Your task to perform on an android device: open app "VLC for Android" (install if not already installed) Image 0: 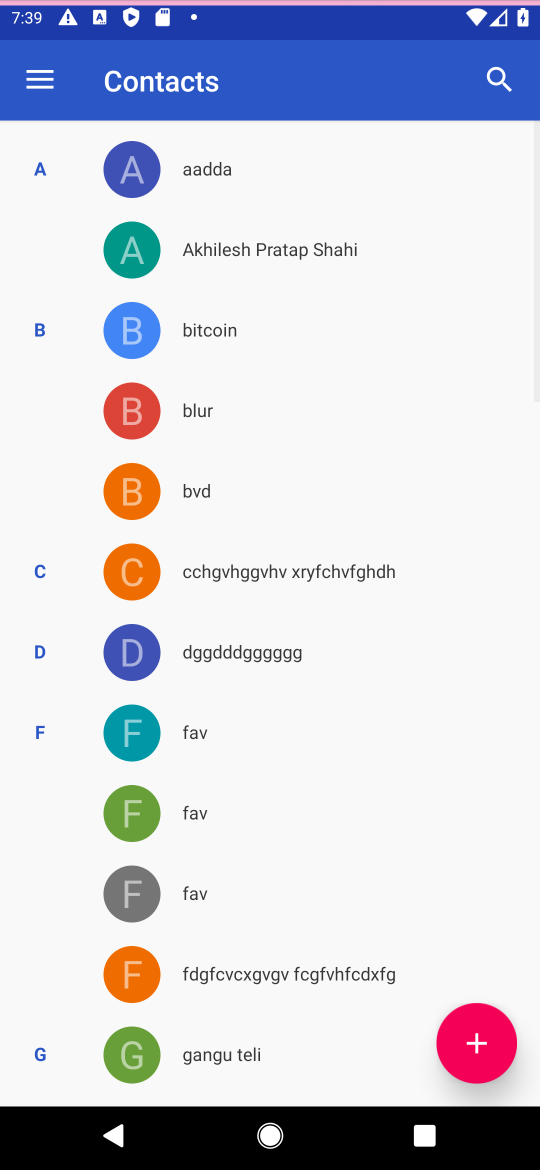
Step 0: click (267, 586)
Your task to perform on an android device: open app "VLC for Android" (install if not already installed) Image 1: 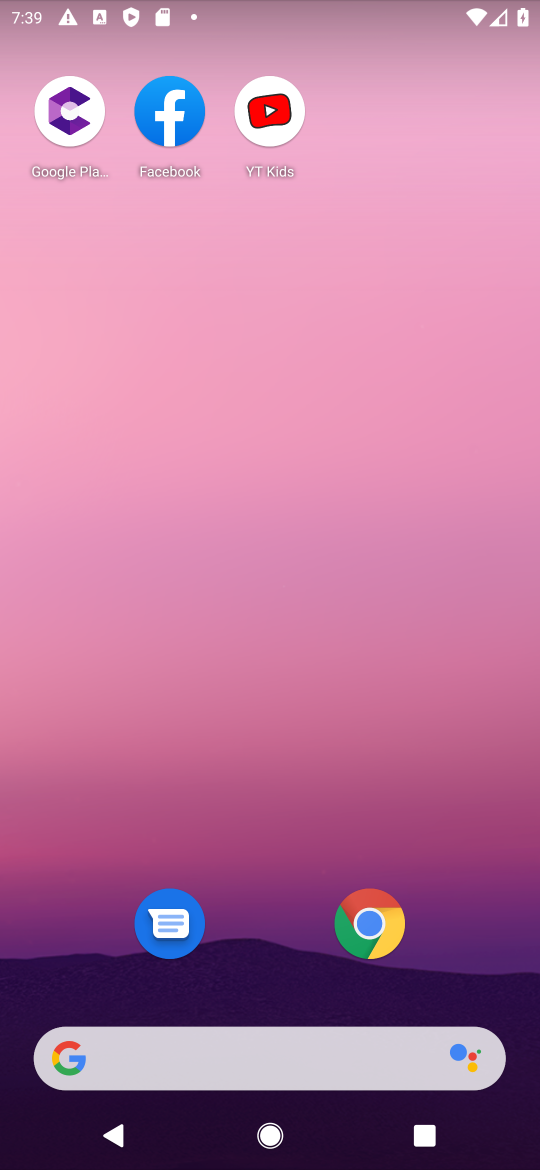
Step 1: press home button
Your task to perform on an android device: open app "VLC for Android" (install if not already installed) Image 2: 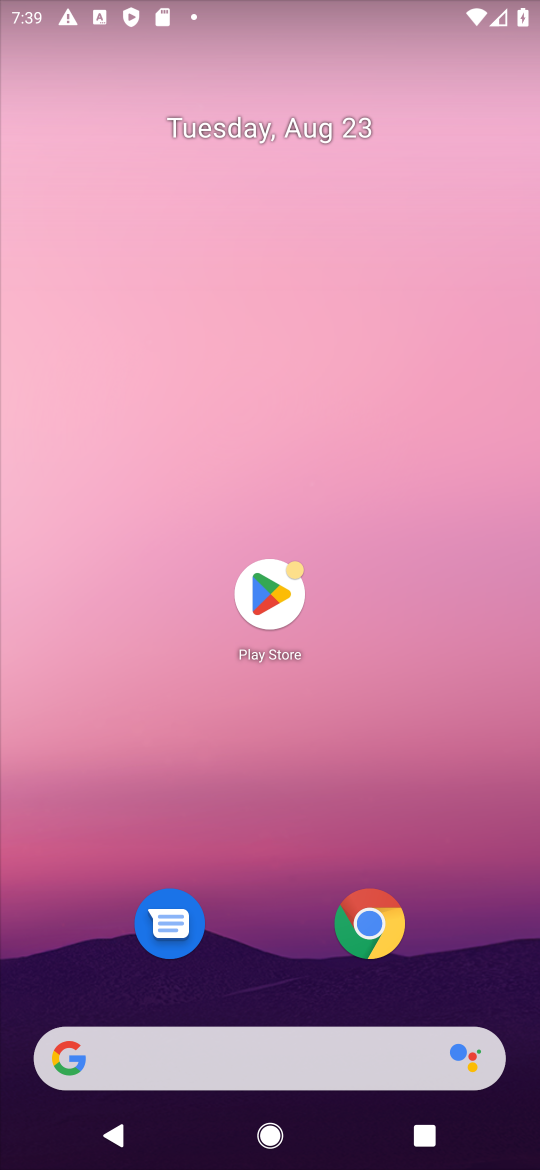
Step 2: click (284, 599)
Your task to perform on an android device: open app "VLC for Android" (install if not already installed) Image 3: 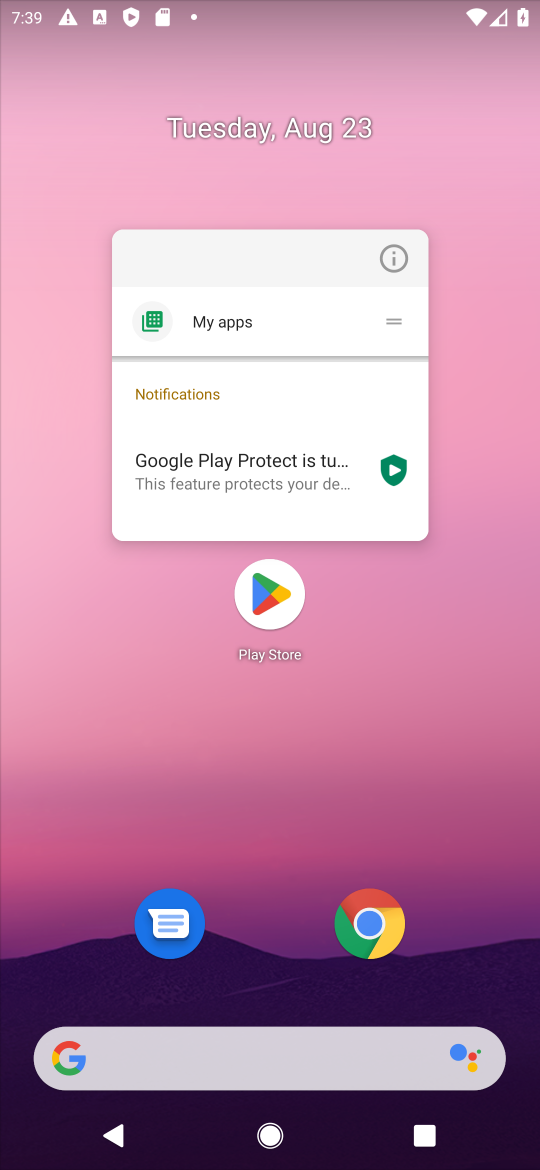
Step 3: click (274, 608)
Your task to perform on an android device: open app "VLC for Android" (install if not already installed) Image 4: 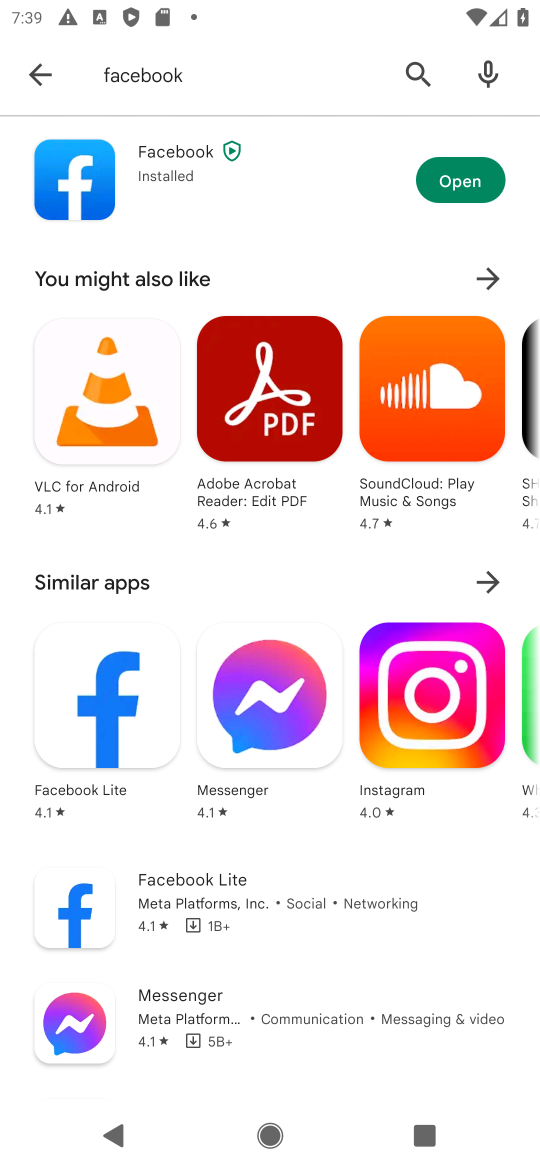
Step 4: click (411, 71)
Your task to perform on an android device: open app "VLC for Android" (install if not already installed) Image 5: 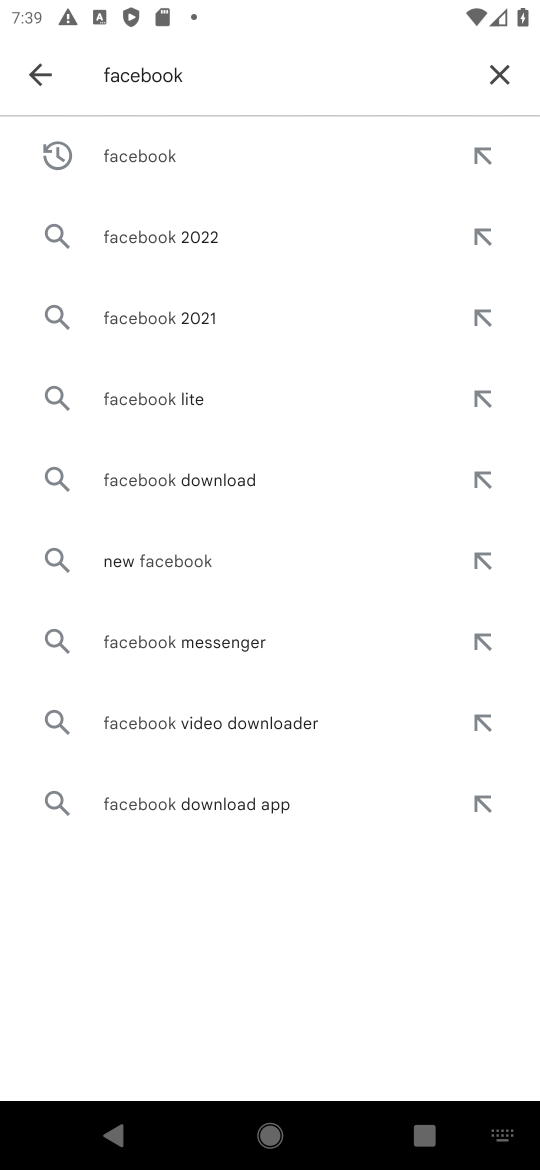
Step 5: click (504, 68)
Your task to perform on an android device: open app "VLC for Android" (install if not already installed) Image 6: 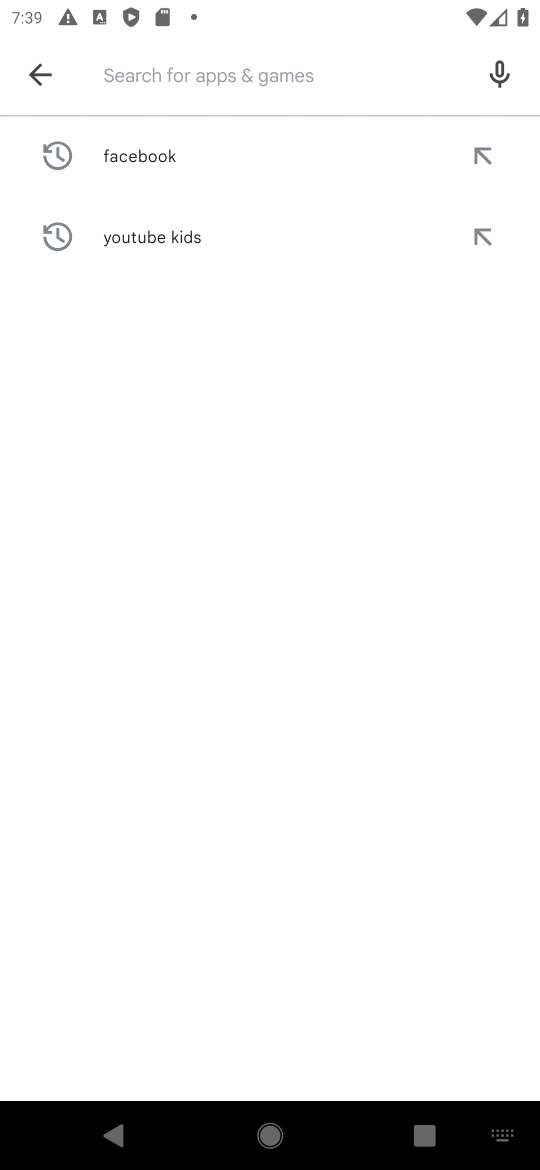
Step 6: type "VLC for Android"
Your task to perform on an android device: open app "VLC for Android" (install if not already installed) Image 7: 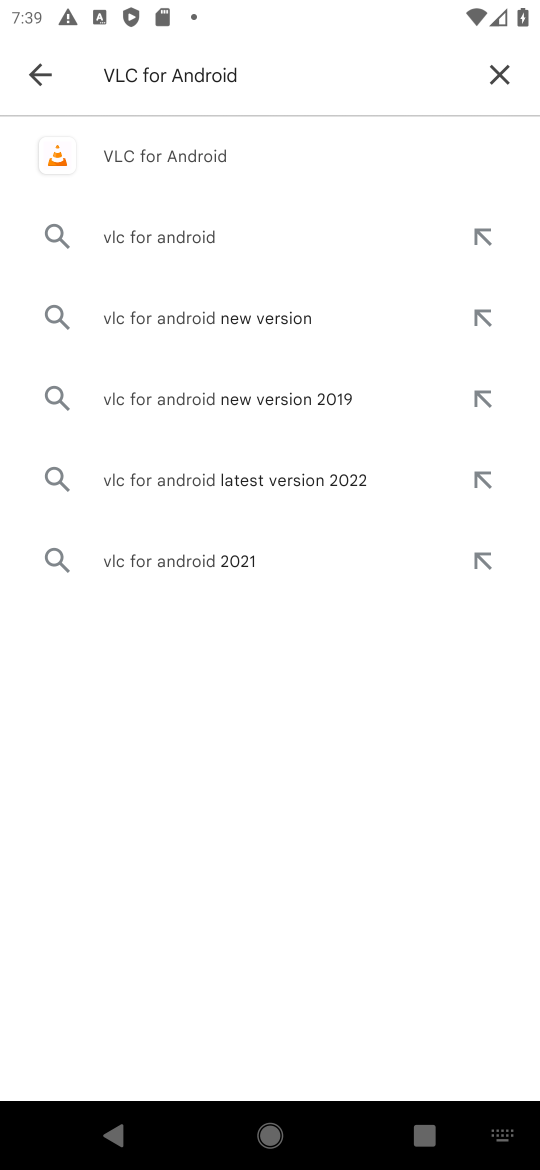
Step 7: click (178, 146)
Your task to perform on an android device: open app "VLC for Android" (install if not already installed) Image 8: 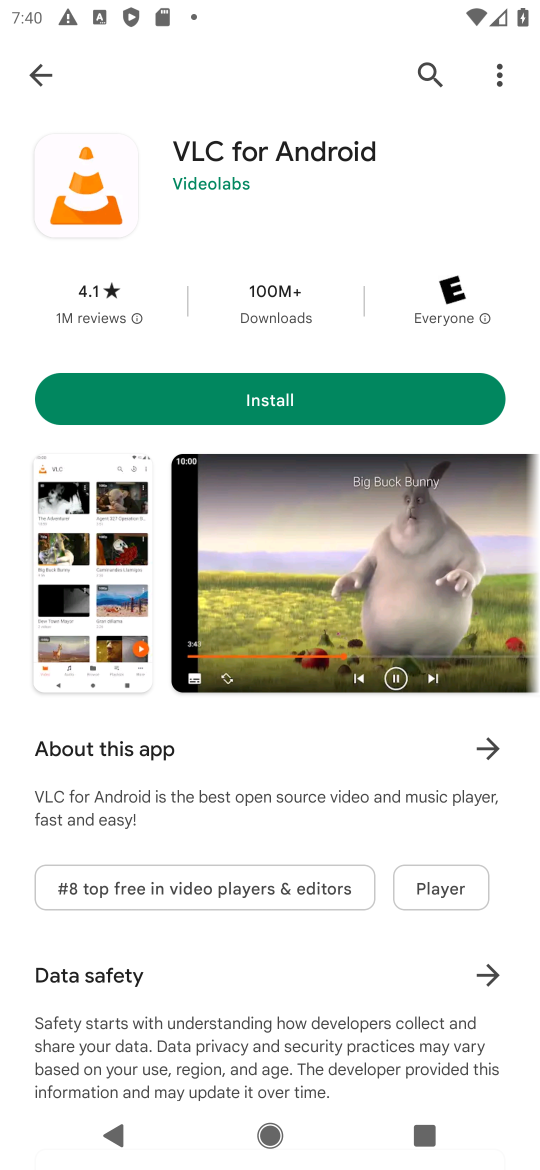
Step 8: click (268, 394)
Your task to perform on an android device: open app "VLC for Android" (install if not already installed) Image 9: 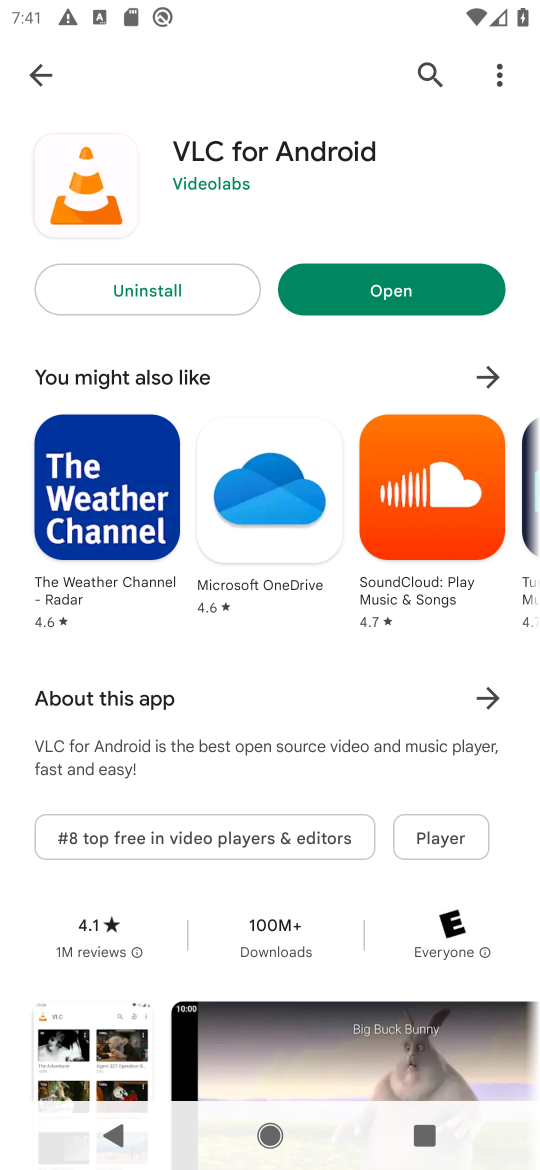
Step 9: click (430, 284)
Your task to perform on an android device: open app "VLC for Android" (install if not already installed) Image 10: 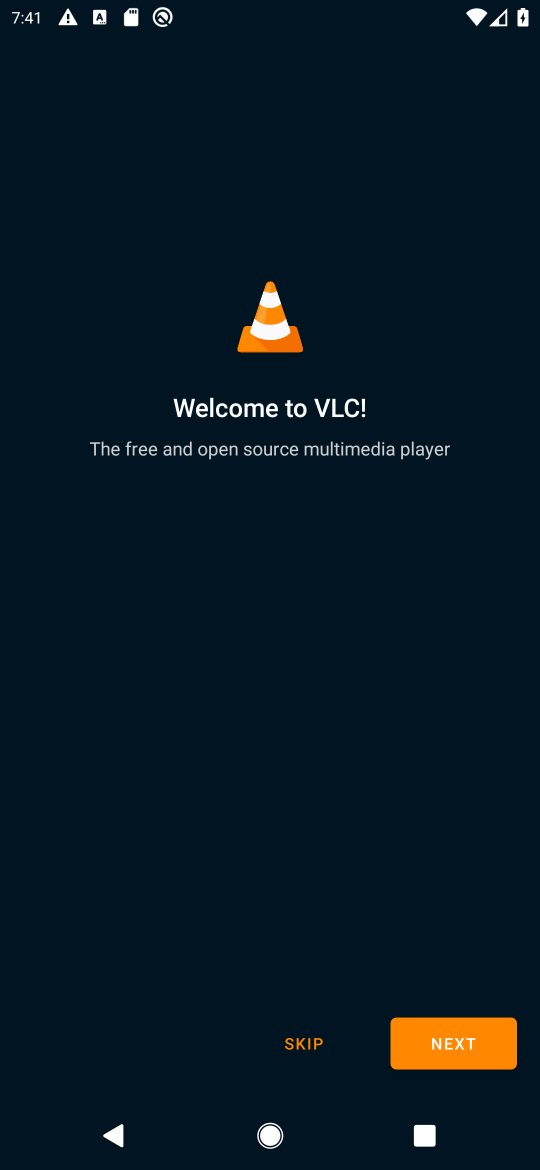
Step 10: task complete